Your task to perform on an android device: see creations saved in the google photos Image 0: 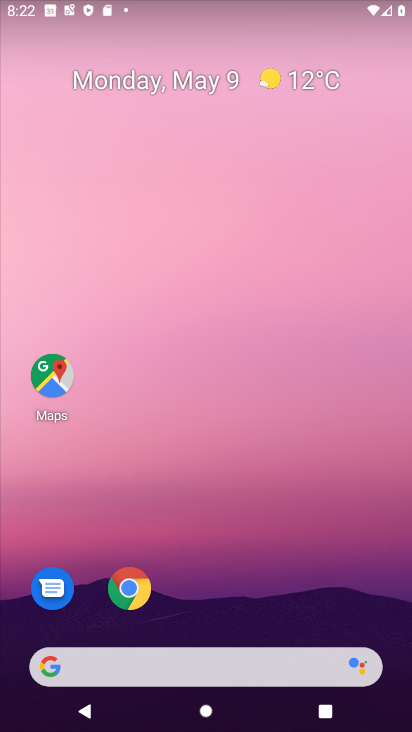
Step 0: press home button
Your task to perform on an android device: see creations saved in the google photos Image 1: 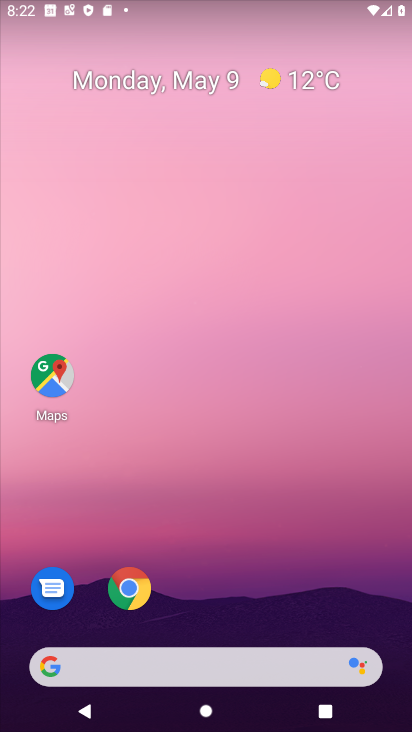
Step 1: drag from (189, 657) to (331, 183)
Your task to perform on an android device: see creations saved in the google photos Image 2: 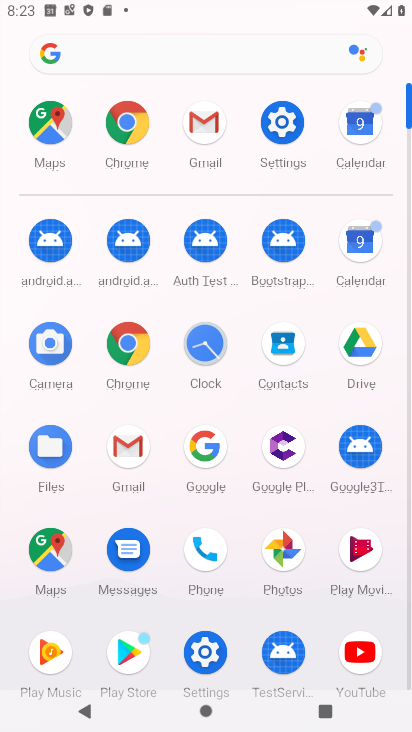
Step 2: click (285, 554)
Your task to perform on an android device: see creations saved in the google photos Image 3: 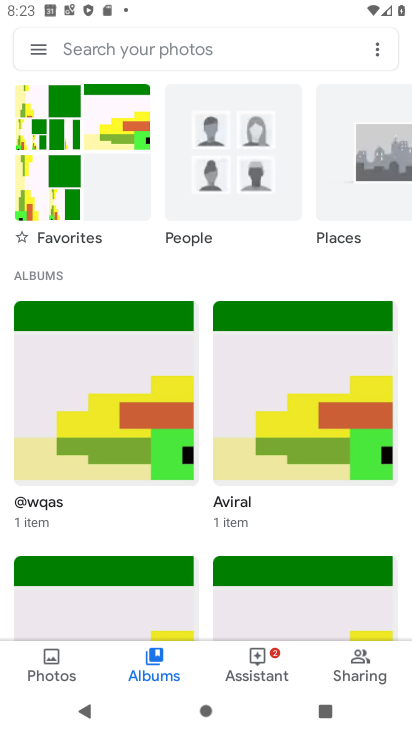
Step 3: click (173, 40)
Your task to perform on an android device: see creations saved in the google photos Image 4: 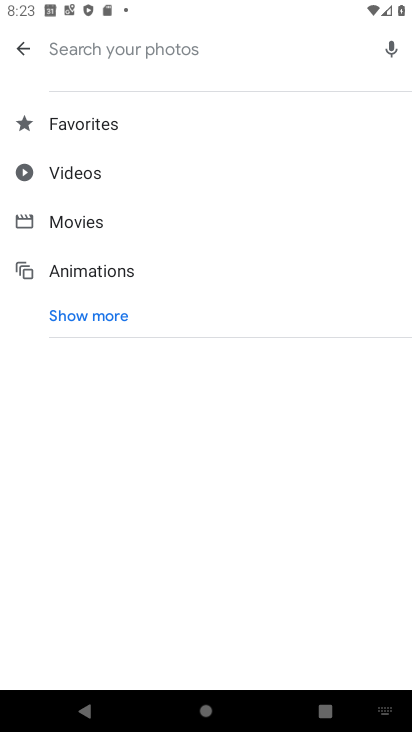
Step 4: click (89, 316)
Your task to perform on an android device: see creations saved in the google photos Image 5: 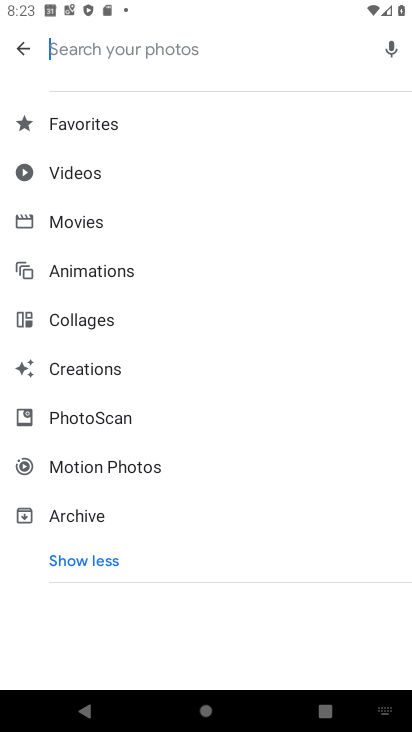
Step 5: click (99, 366)
Your task to perform on an android device: see creations saved in the google photos Image 6: 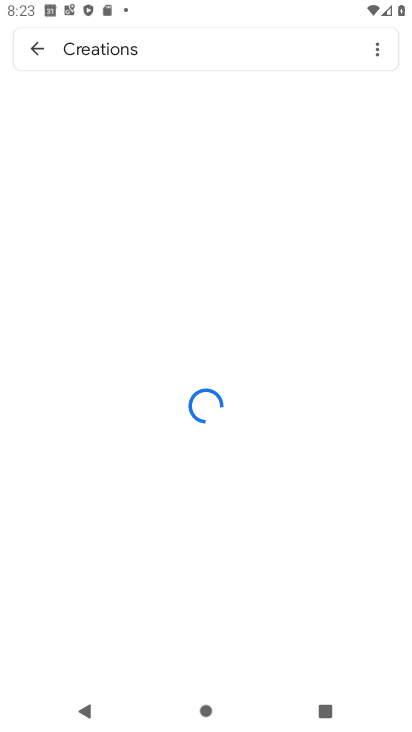
Step 6: task complete